Your task to perform on an android device: move a message to another label in the gmail app Image 0: 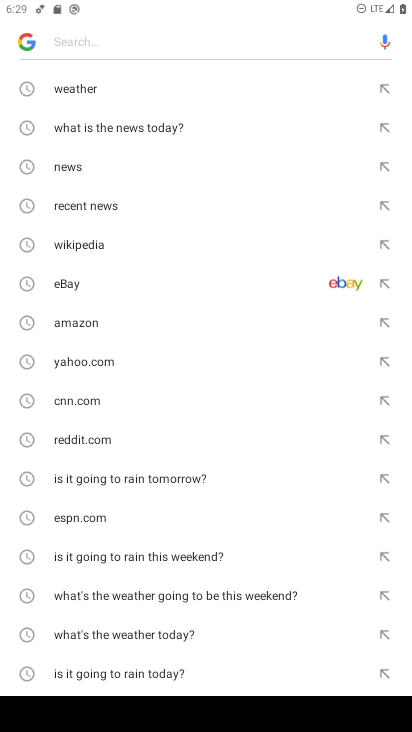
Step 0: press home button
Your task to perform on an android device: move a message to another label in the gmail app Image 1: 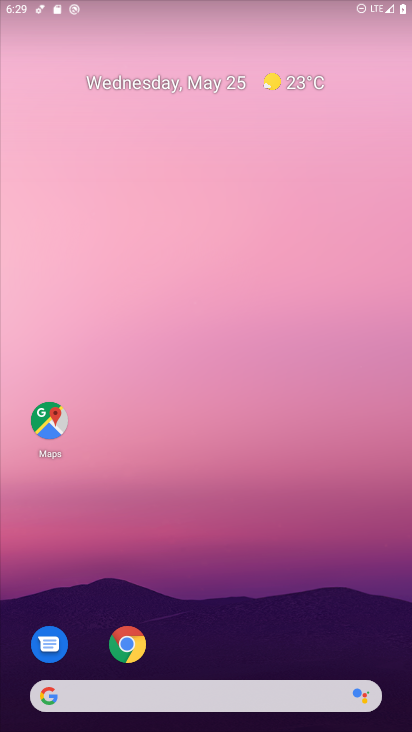
Step 1: drag from (390, 660) to (302, 20)
Your task to perform on an android device: move a message to another label in the gmail app Image 2: 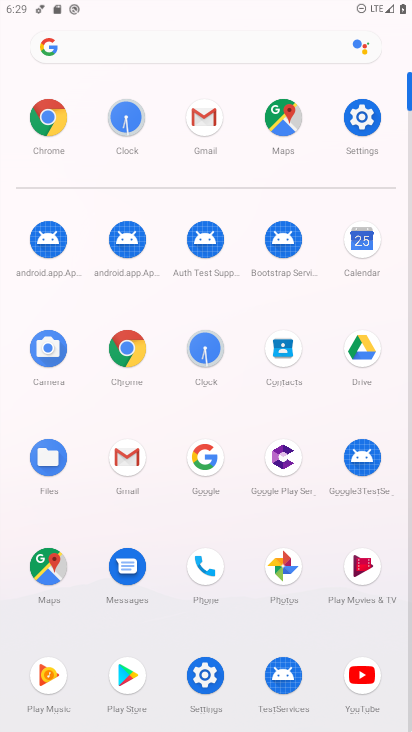
Step 2: click (134, 457)
Your task to perform on an android device: move a message to another label in the gmail app Image 3: 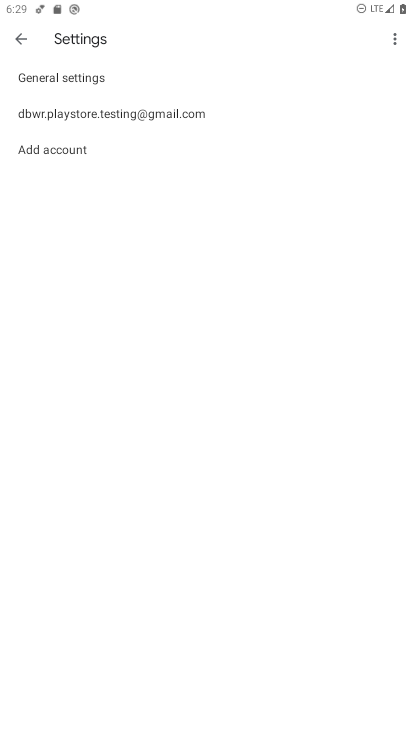
Step 3: task complete